Your task to perform on an android device: change notifications settings Image 0: 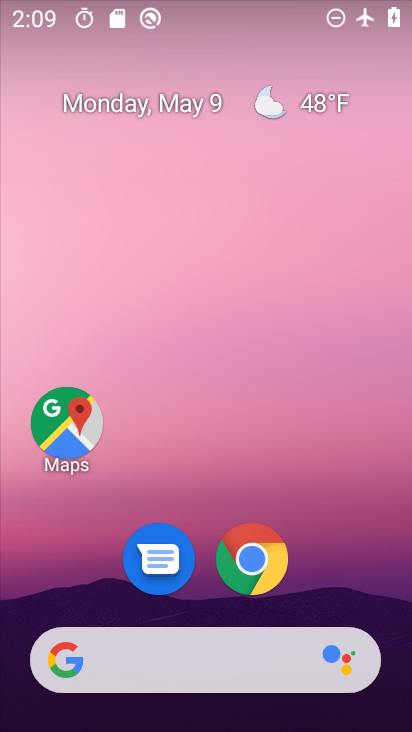
Step 0: drag from (197, 591) to (300, 181)
Your task to perform on an android device: change notifications settings Image 1: 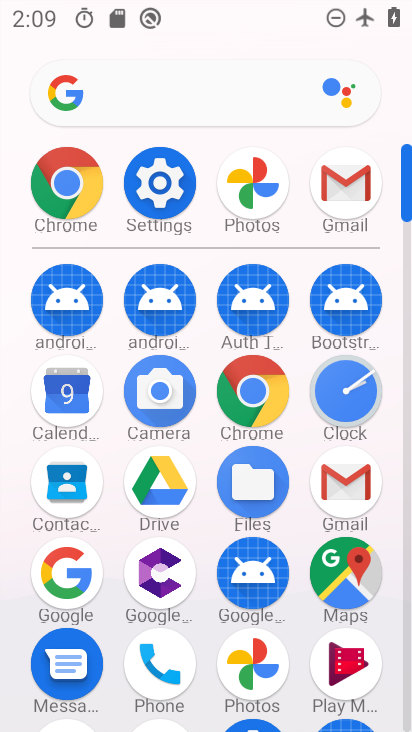
Step 1: click (175, 199)
Your task to perform on an android device: change notifications settings Image 2: 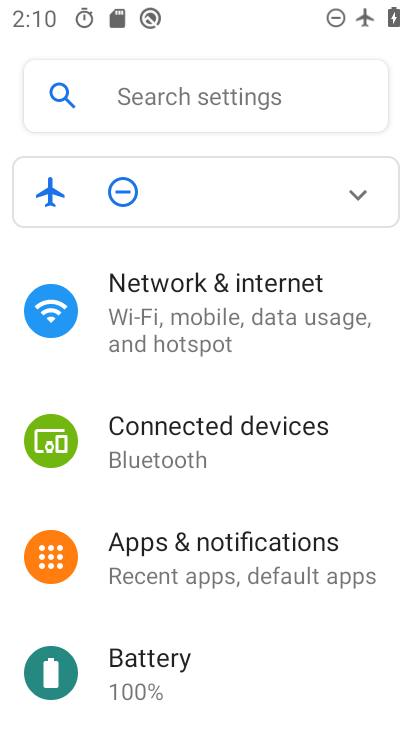
Step 2: click (200, 566)
Your task to perform on an android device: change notifications settings Image 3: 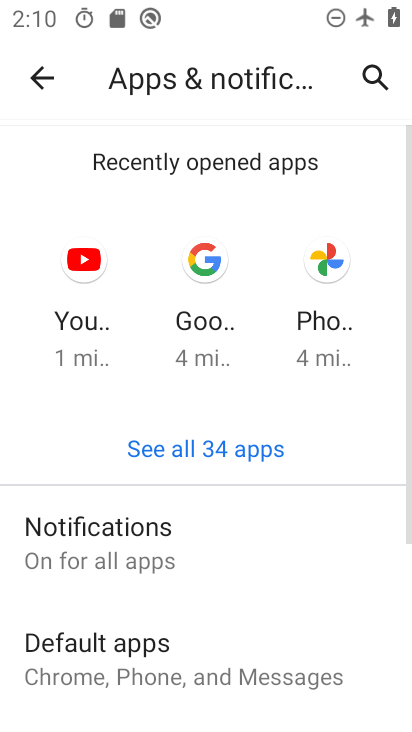
Step 3: drag from (166, 614) to (317, 141)
Your task to perform on an android device: change notifications settings Image 4: 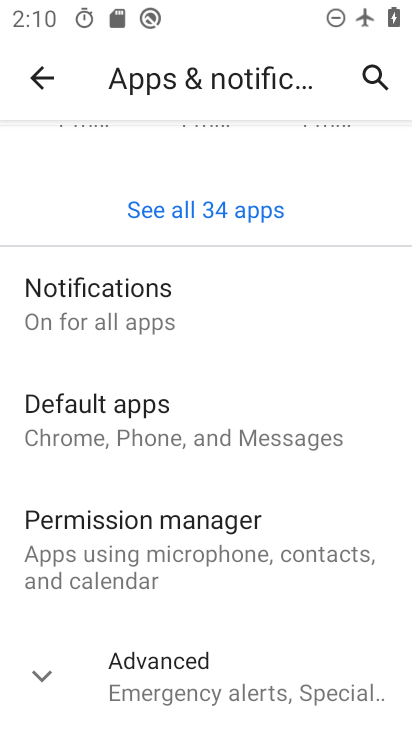
Step 4: click (163, 320)
Your task to perform on an android device: change notifications settings Image 5: 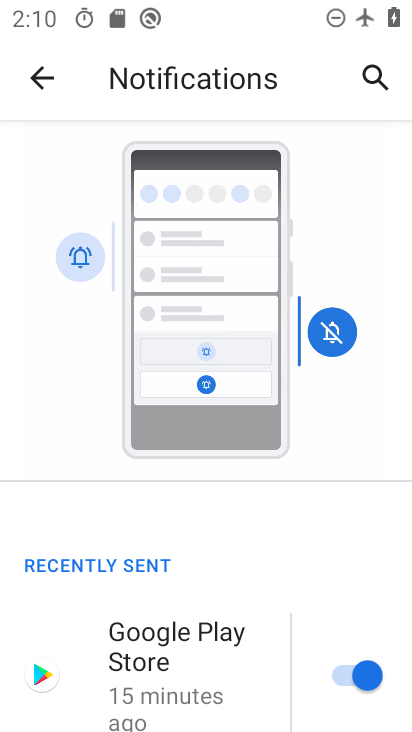
Step 5: click (329, 318)
Your task to perform on an android device: change notifications settings Image 6: 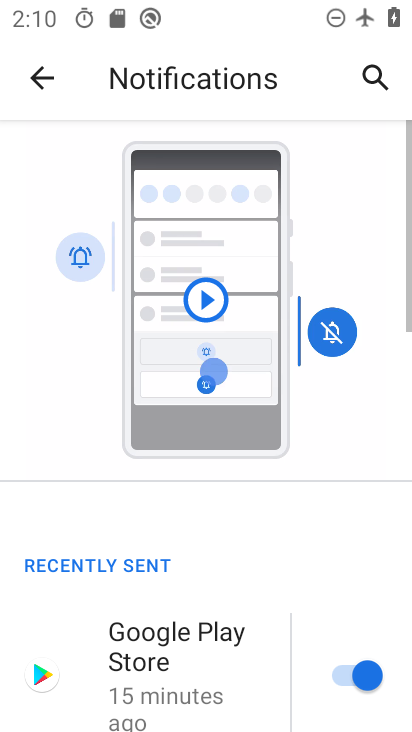
Step 6: drag from (284, 587) to (387, 267)
Your task to perform on an android device: change notifications settings Image 7: 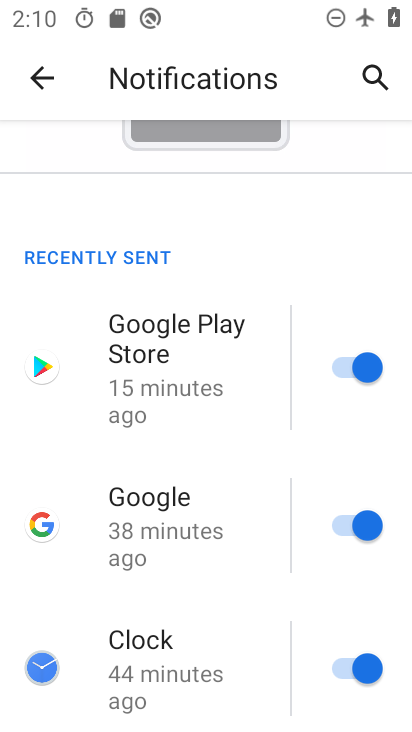
Step 7: click (345, 347)
Your task to perform on an android device: change notifications settings Image 8: 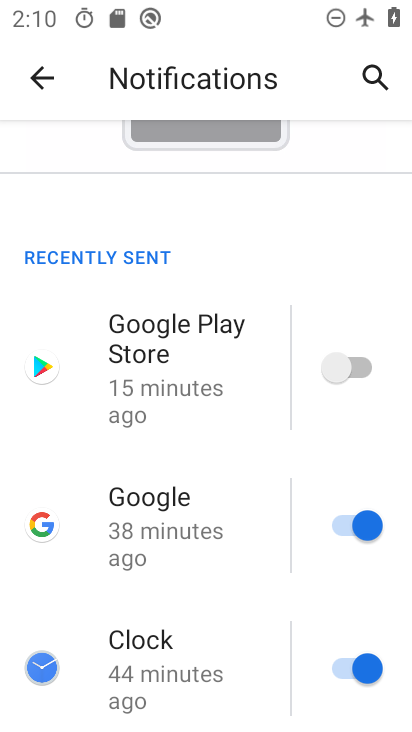
Step 8: task complete